Your task to perform on an android device: star an email in the gmail app Image 0: 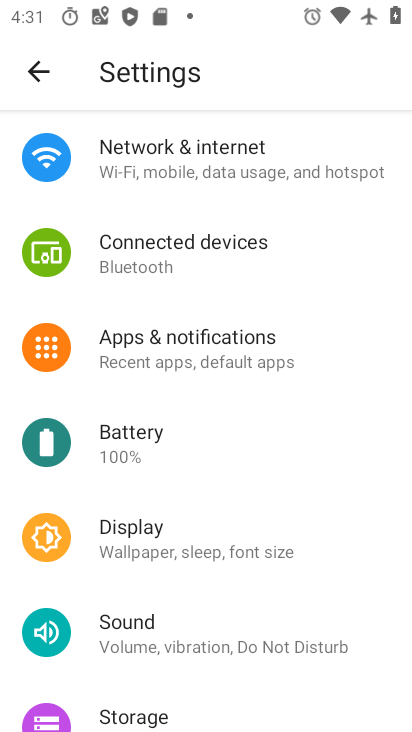
Step 0: press home button
Your task to perform on an android device: star an email in the gmail app Image 1: 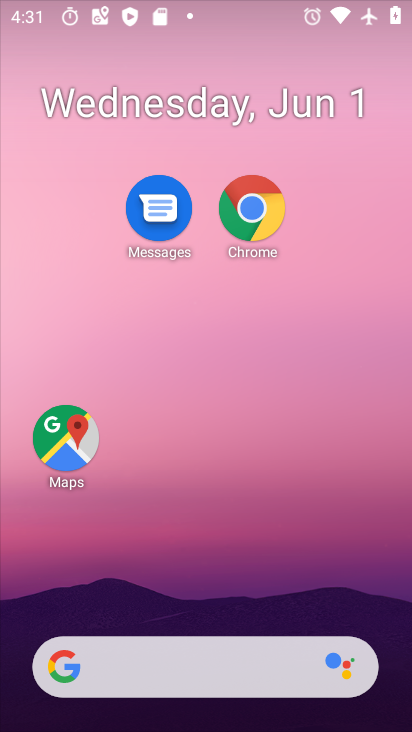
Step 1: drag from (192, 606) to (182, 300)
Your task to perform on an android device: star an email in the gmail app Image 2: 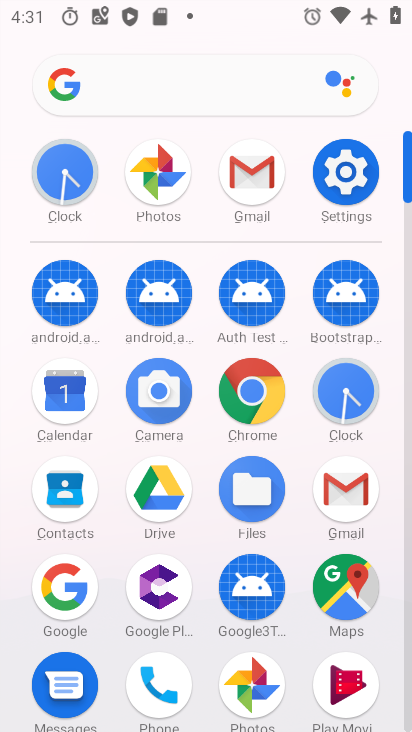
Step 2: click (263, 186)
Your task to perform on an android device: star an email in the gmail app Image 3: 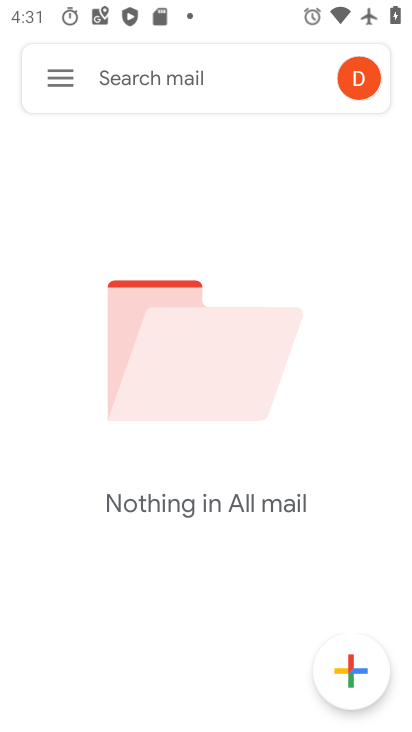
Step 3: click (59, 82)
Your task to perform on an android device: star an email in the gmail app Image 4: 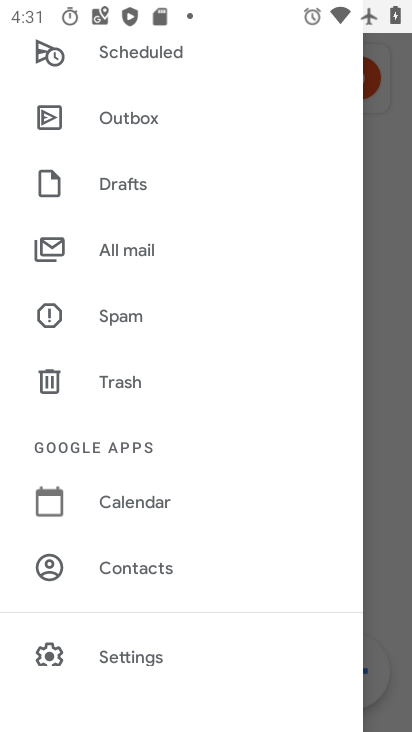
Step 4: drag from (141, 159) to (220, 485)
Your task to perform on an android device: star an email in the gmail app Image 5: 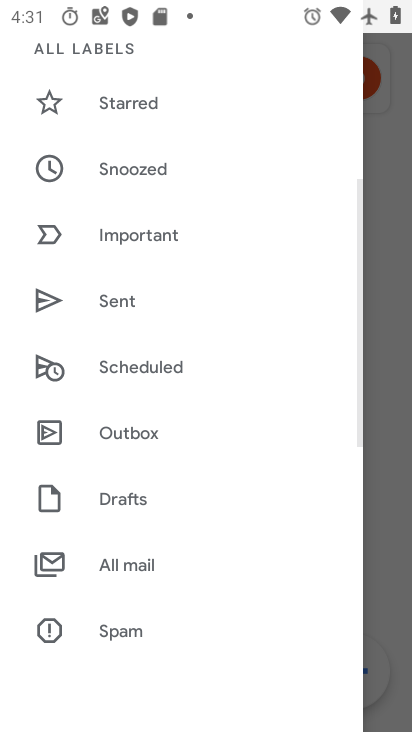
Step 5: drag from (122, 134) to (173, 481)
Your task to perform on an android device: star an email in the gmail app Image 6: 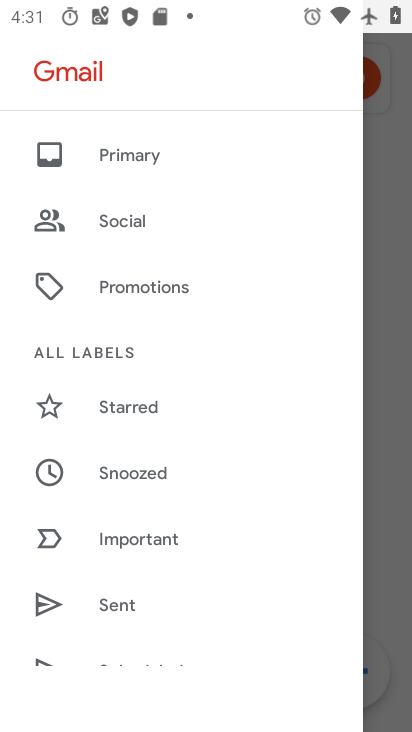
Step 6: drag from (173, 590) to (197, 202)
Your task to perform on an android device: star an email in the gmail app Image 7: 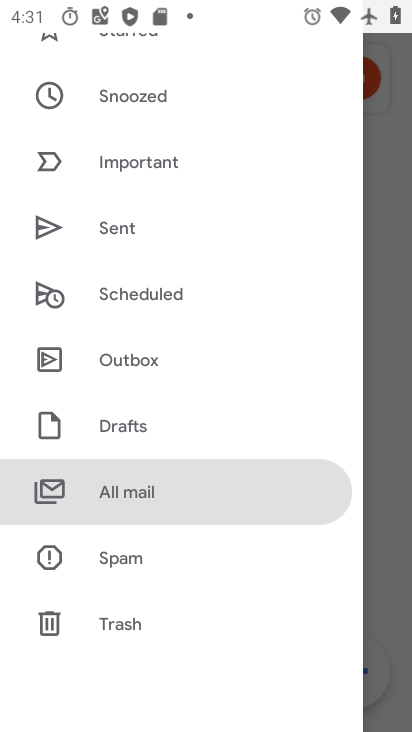
Step 7: click (156, 482)
Your task to perform on an android device: star an email in the gmail app Image 8: 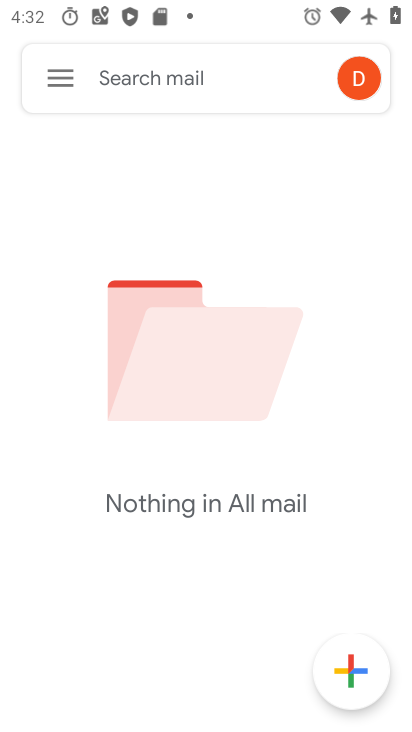
Step 8: task complete